Your task to perform on an android device: add a contact Image 0: 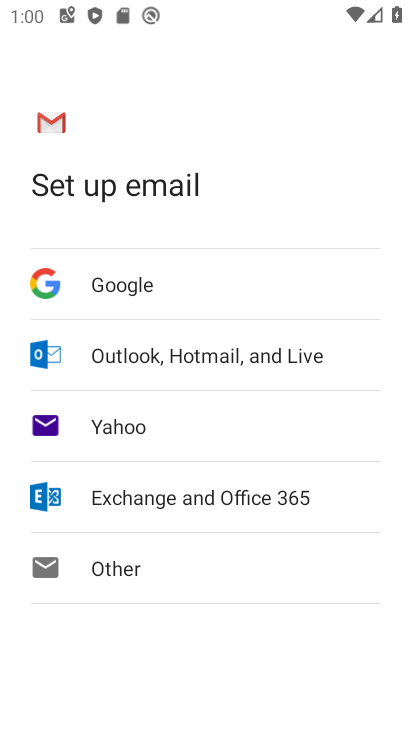
Step 0: press home button
Your task to perform on an android device: add a contact Image 1: 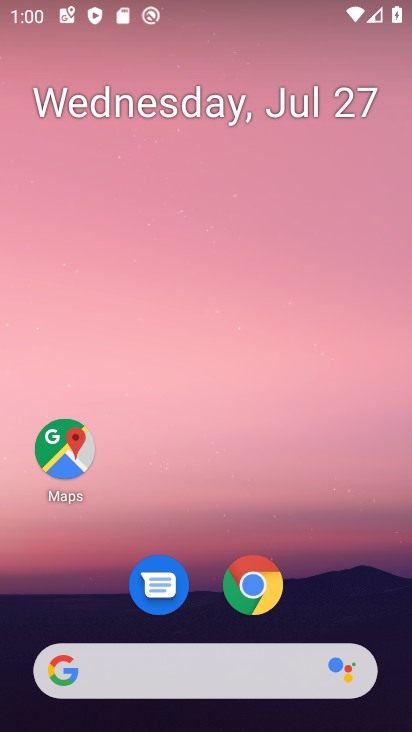
Step 1: drag from (211, 680) to (322, 68)
Your task to perform on an android device: add a contact Image 2: 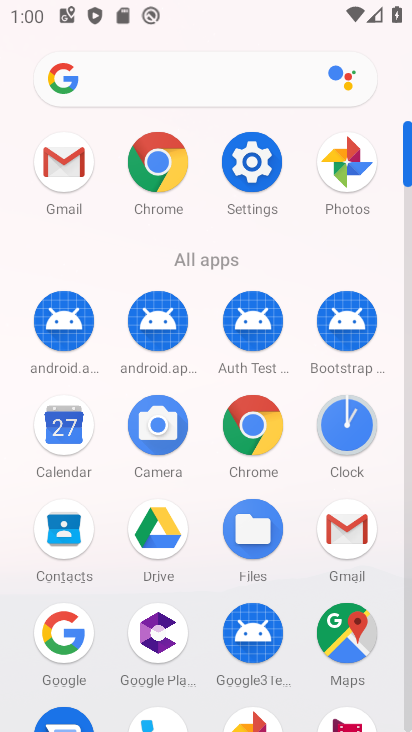
Step 2: click (69, 534)
Your task to perform on an android device: add a contact Image 3: 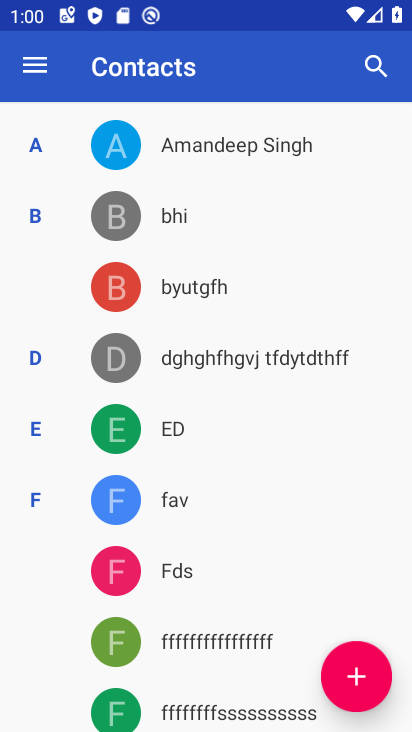
Step 3: click (360, 661)
Your task to perform on an android device: add a contact Image 4: 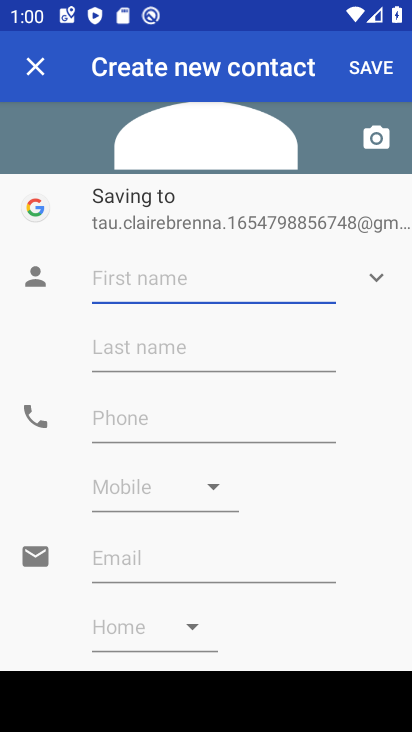
Step 4: click (162, 279)
Your task to perform on an android device: add a contact Image 5: 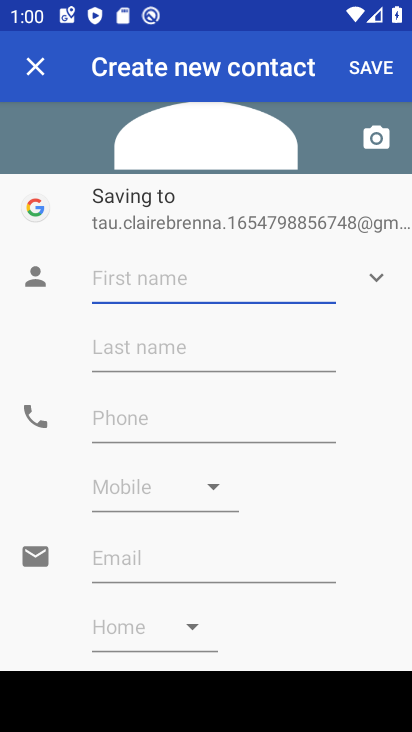
Step 5: type "meyrtghg"
Your task to perform on an android device: add a contact Image 6: 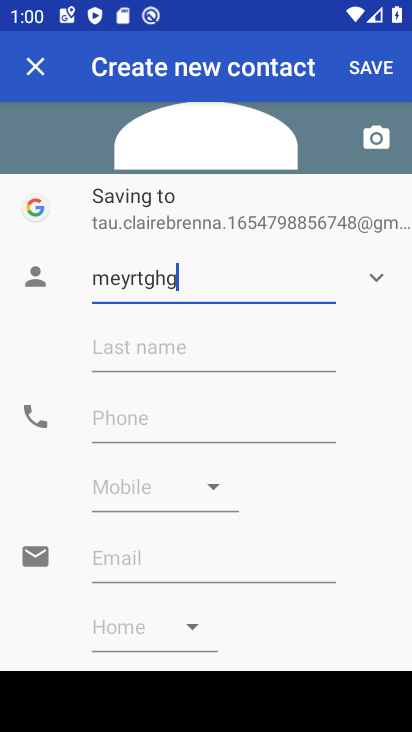
Step 6: click (143, 412)
Your task to perform on an android device: add a contact Image 7: 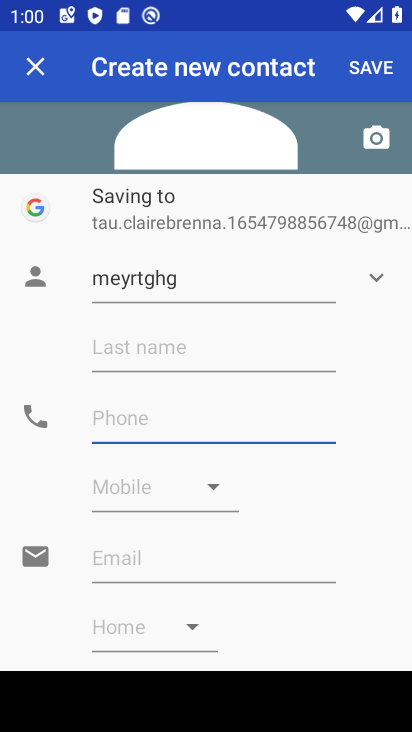
Step 7: type "1946655"
Your task to perform on an android device: add a contact Image 8: 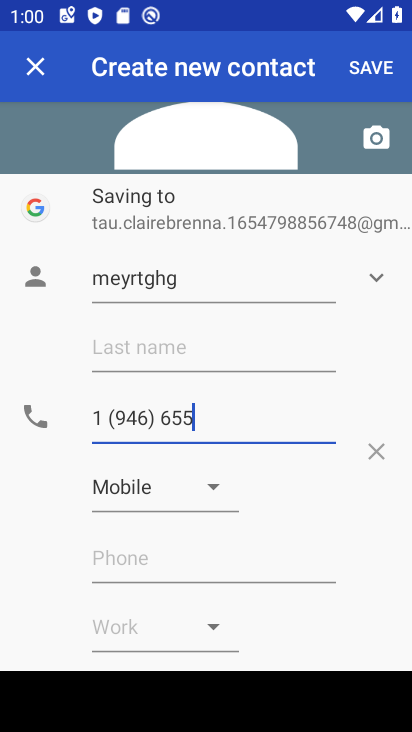
Step 8: click (384, 70)
Your task to perform on an android device: add a contact Image 9: 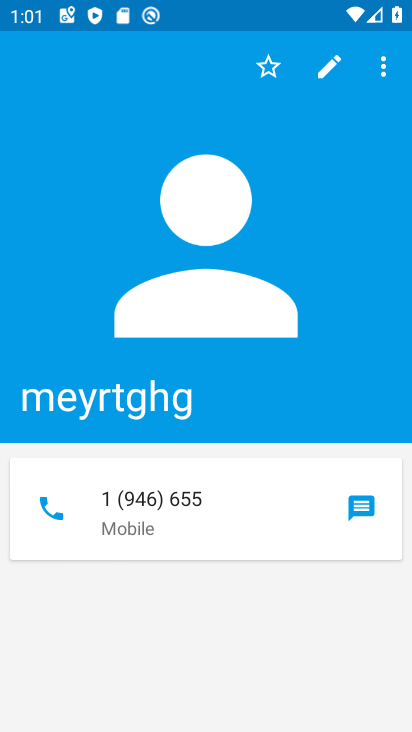
Step 9: task complete